Your task to perform on an android device: toggle data saver in the chrome app Image 0: 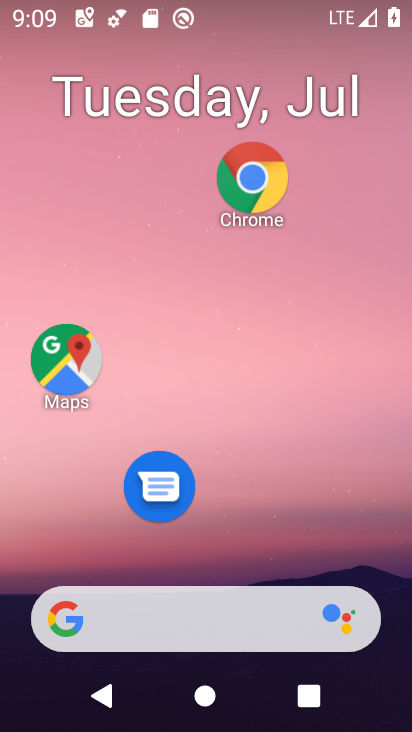
Step 0: drag from (175, 675) to (209, 38)
Your task to perform on an android device: toggle data saver in the chrome app Image 1: 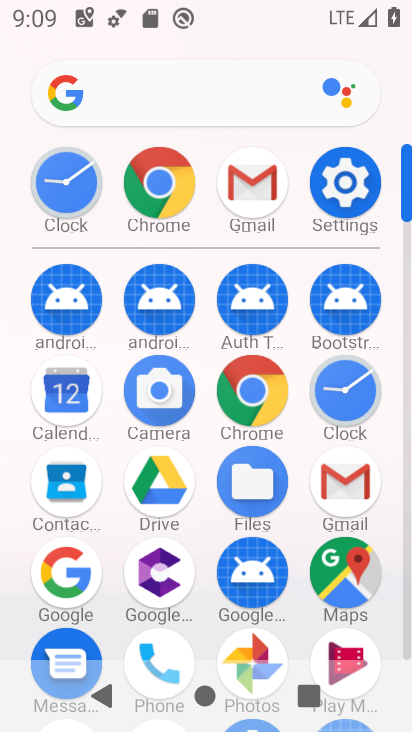
Step 1: click (168, 187)
Your task to perform on an android device: toggle data saver in the chrome app Image 2: 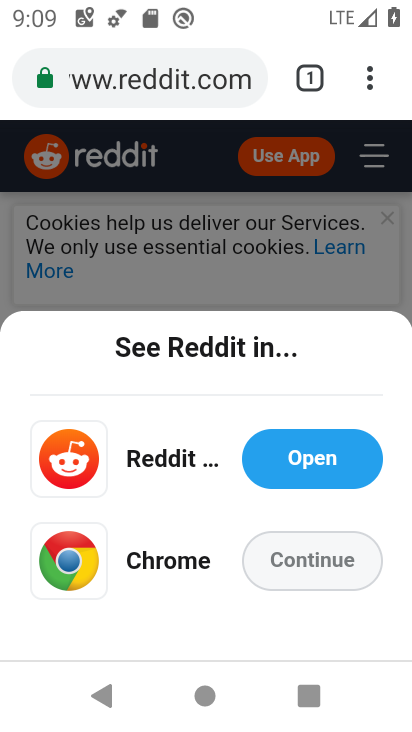
Step 2: click (374, 90)
Your task to perform on an android device: toggle data saver in the chrome app Image 3: 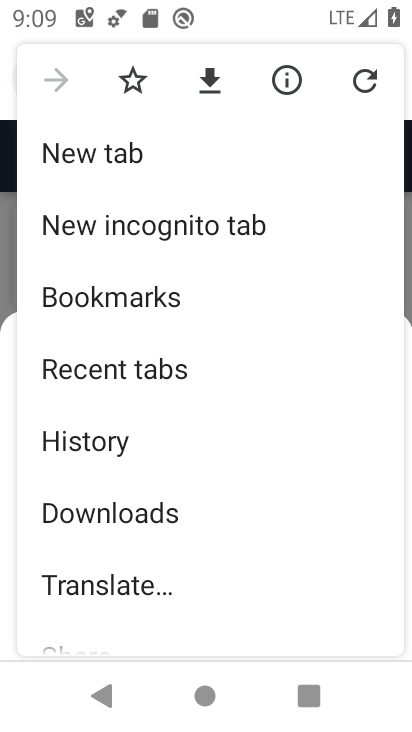
Step 3: drag from (151, 594) to (234, 54)
Your task to perform on an android device: toggle data saver in the chrome app Image 4: 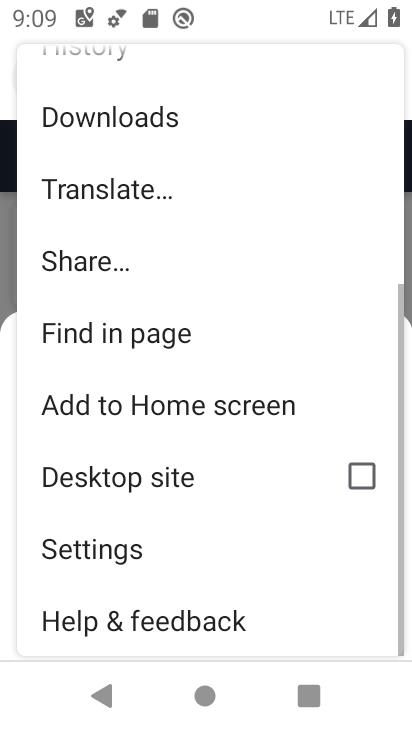
Step 4: click (111, 555)
Your task to perform on an android device: toggle data saver in the chrome app Image 5: 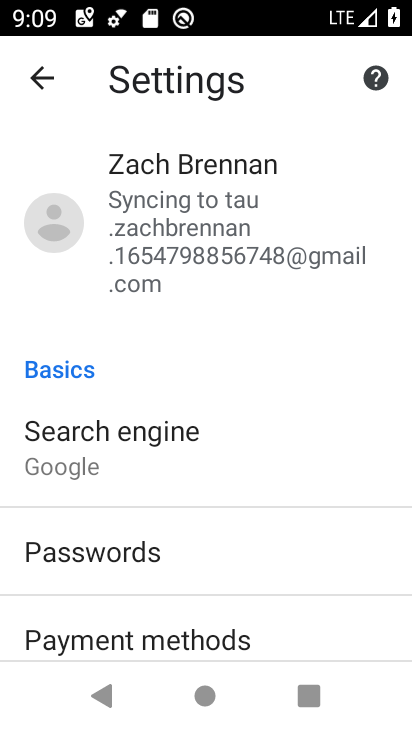
Step 5: drag from (117, 553) to (134, 295)
Your task to perform on an android device: toggle data saver in the chrome app Image 6: 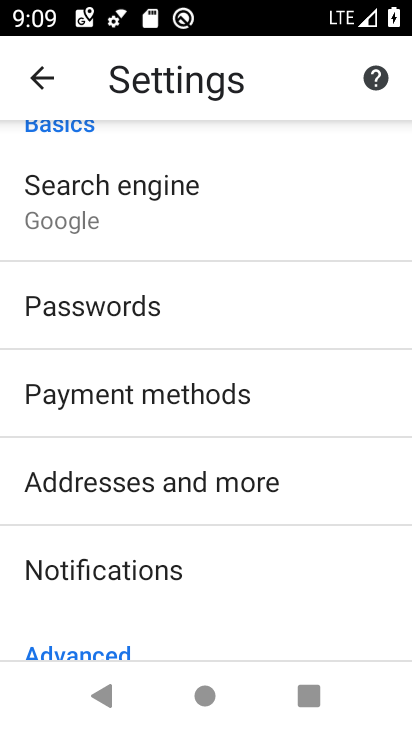
Step 6: drag from (138, 576) to (167, 430)
Your task to perform on an android device: toggle data saver in the chrome app Image 7: 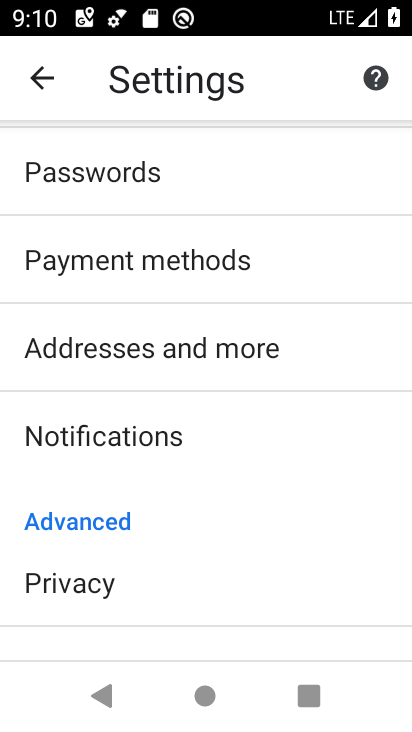
Step 7: drag from (131, 553) to (176, 383)
Your task to perform on an android device: toggle data saver in the chrome app Image 8: 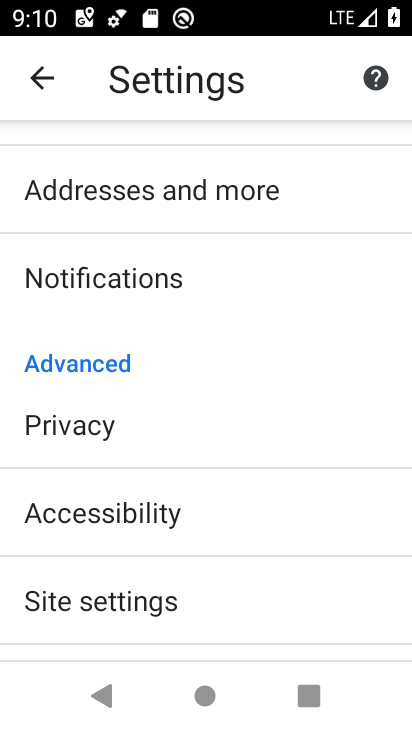
Step 8: drag from (112, 543) to (182, 277)
Your task to perform on an android device: toggle data saver in the chrome app Image 9: 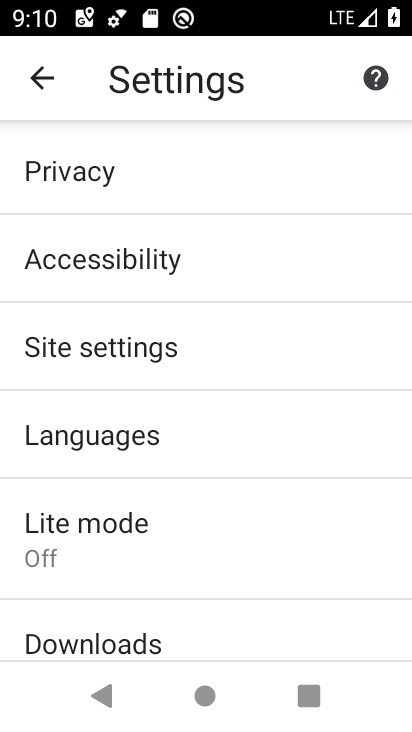
Step 9: click (93, 557)
Your task to perform on an android device: toggle data saver in the chrome app Image 10: 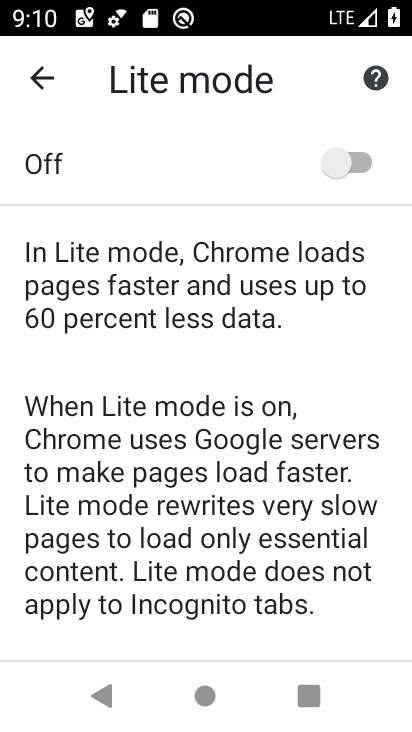
Step 10: click (363, 161)
Your task to perform on an android device: toggle data saver in the chrome app Image 11: 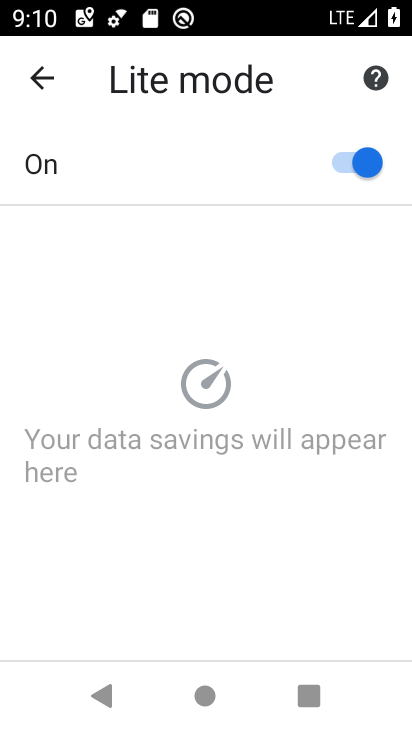
Step 11: task complete